Your task to perform on an android device: allow notifications from all sites in the chrome app Image 0: 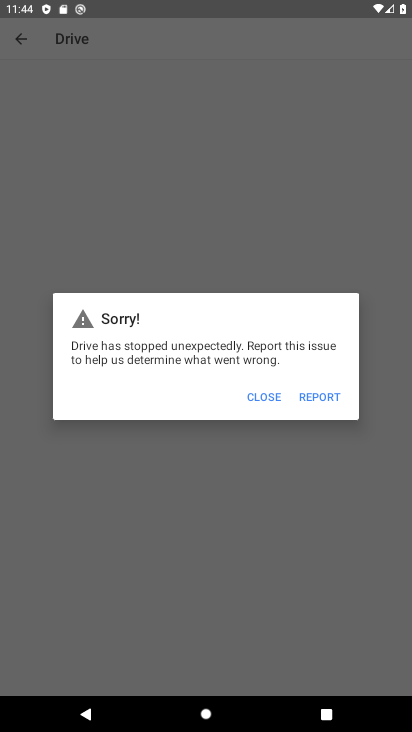
Step 0: press home button
Your task to perform on an android device: allow notifications from all sites in the chrome app Image 1: 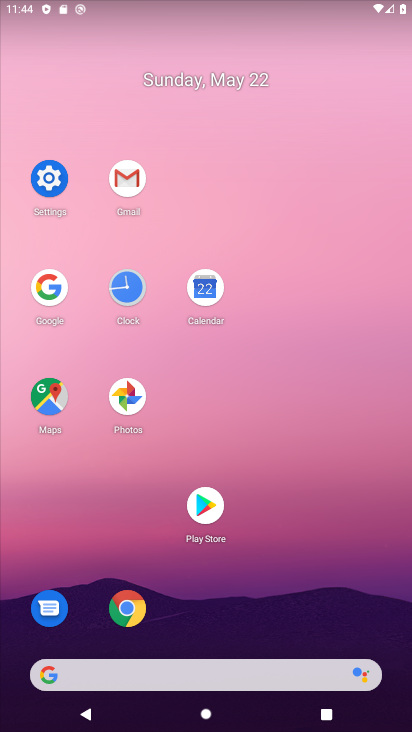
Step 1: click (126, 608)
Your task to perform on an android device: allow notifications from all sites in the chrome app Image 2: 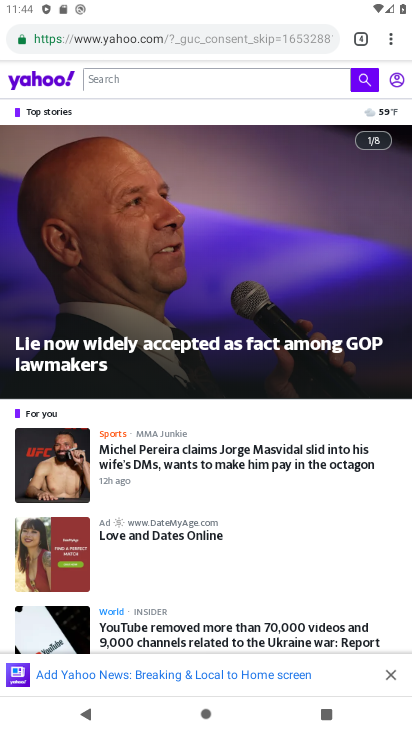
Step 2: click (393, 41)
Your task to perform on an android device: allow notifications from all sites in the chrome app Image 3: 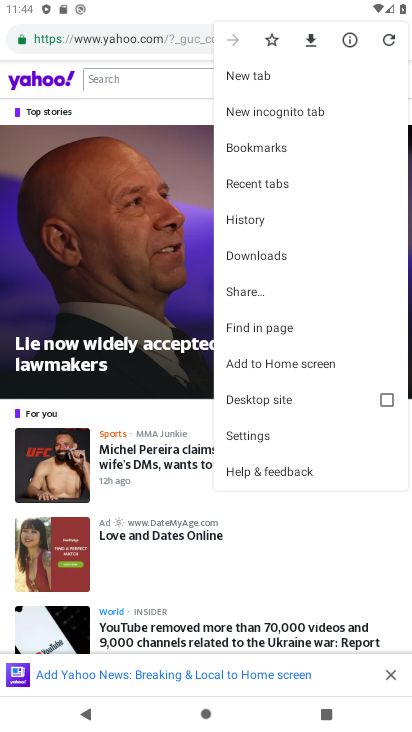
Step 3: click (302, 436)
Your task to perform on an android device: allow notifications from all sites in the chrome app Image 4: 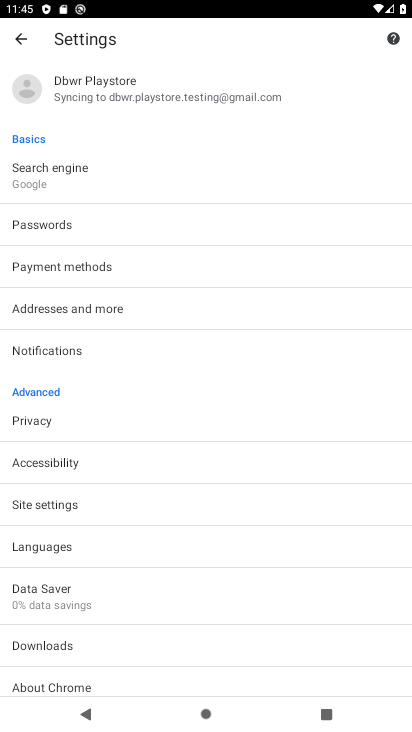
Step 4: click (116, 510)
Your task to perform on an android device: allow notifications from all sites in the chrome app Image 5: 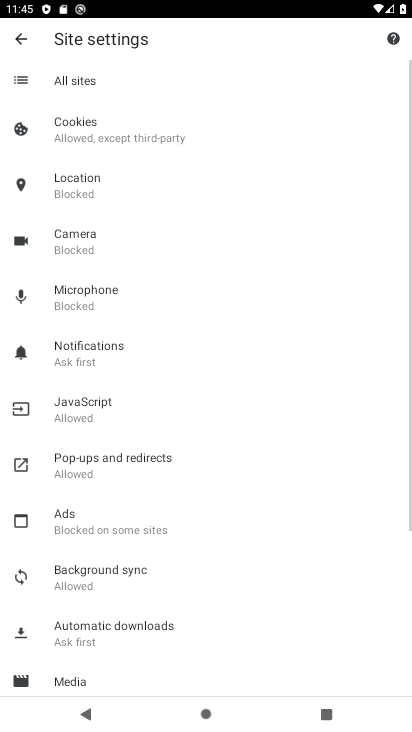
Step 5: click (235, 140)
Your task to perform on an android device: allow notifications from all sites in the chrome app Image 6: 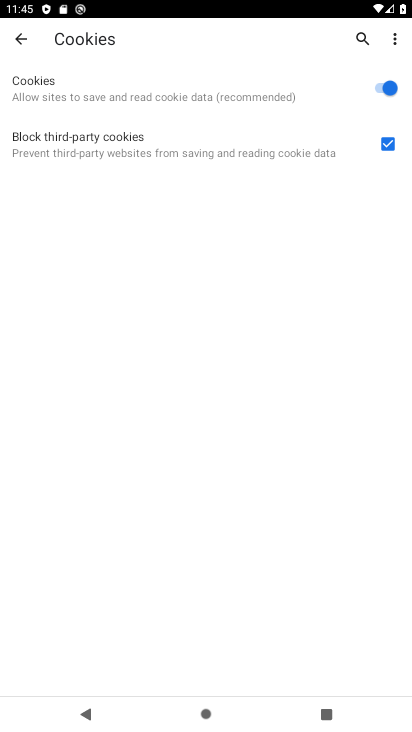
Step 6: task complete